Your task to perform on an android device: Open the map Image 0: 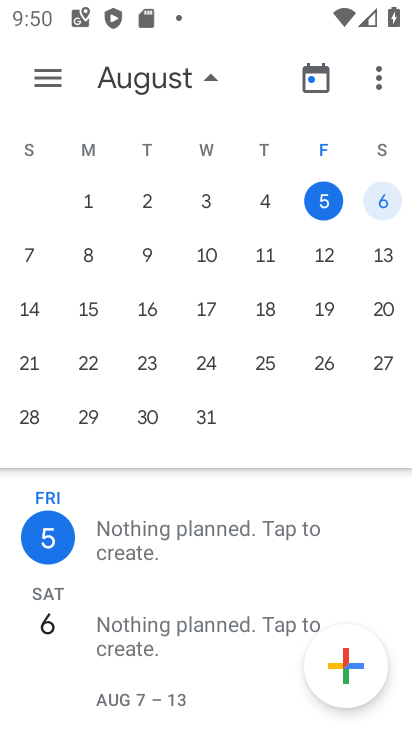
Step 0: press home button
Your task to perform on an android device: Open the map Image 1: 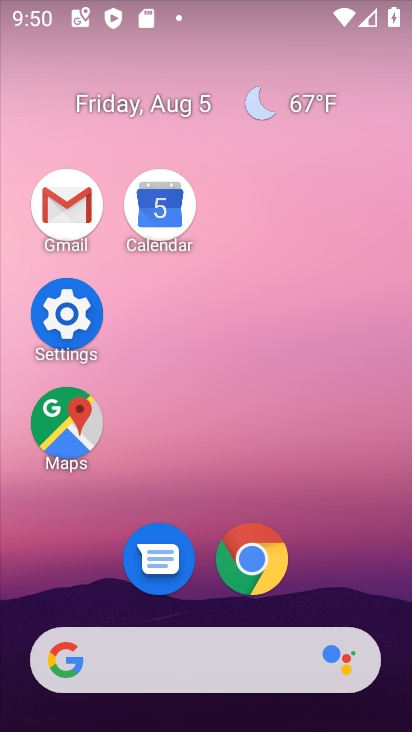
Step 1: click (51, 406)
Your task to perform on an android device: Open the map Image 2: 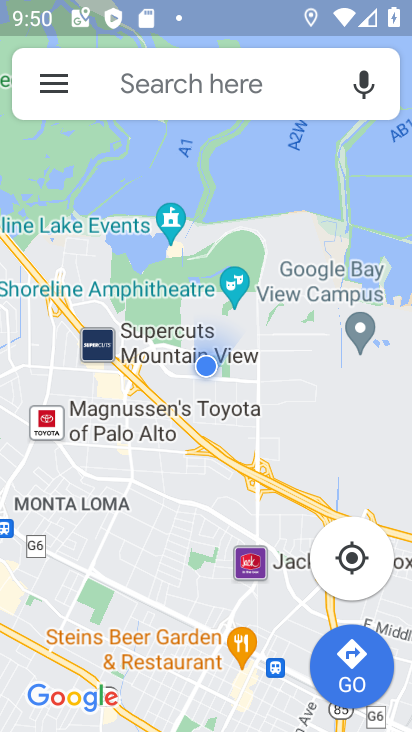
Step 2: task complete